Your task to perform on an android device: See recent photos Image 0: 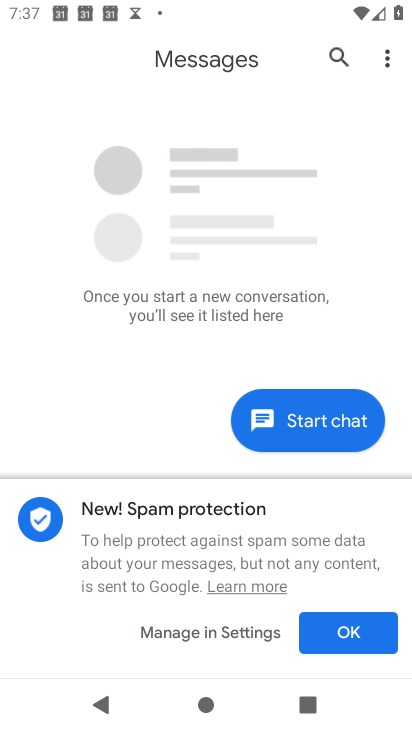
Step 0: press home button
Your task to perform on an android device: See recent photos Image 1: 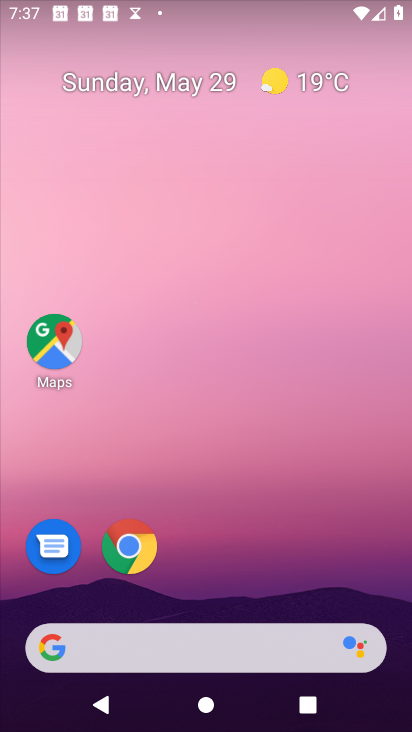
Step 1: drag from (199, 587) to (183, 7)
Your task to perform on an android device: See recent photos Image 2: 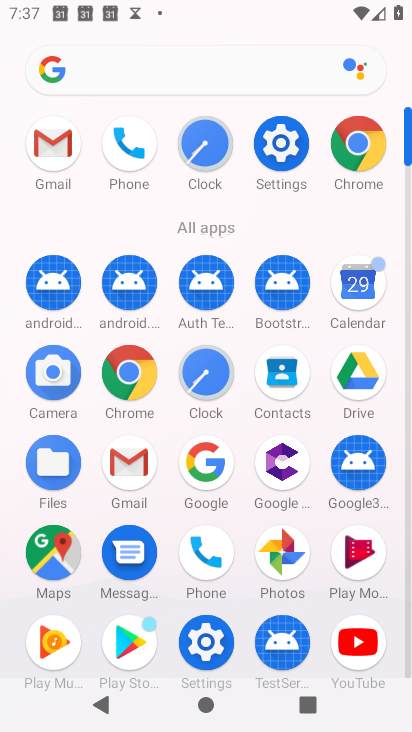
Step 2: click (283, 561)
Your task to perform on an android device: See recent photos Image 3: 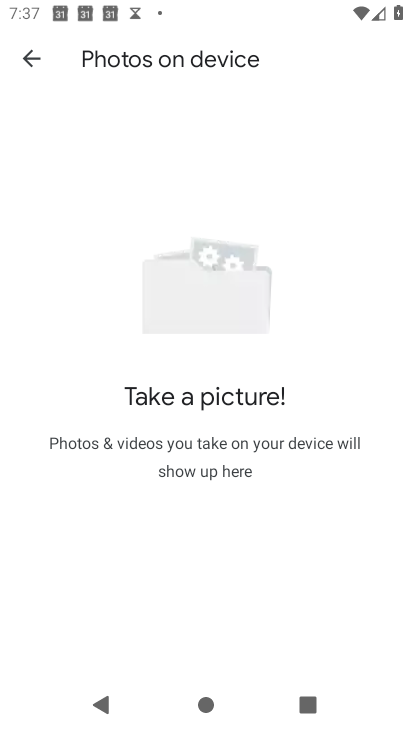
Step 3: click (35, 55)
Your task to perform on an android device: See recent photos Image 4: 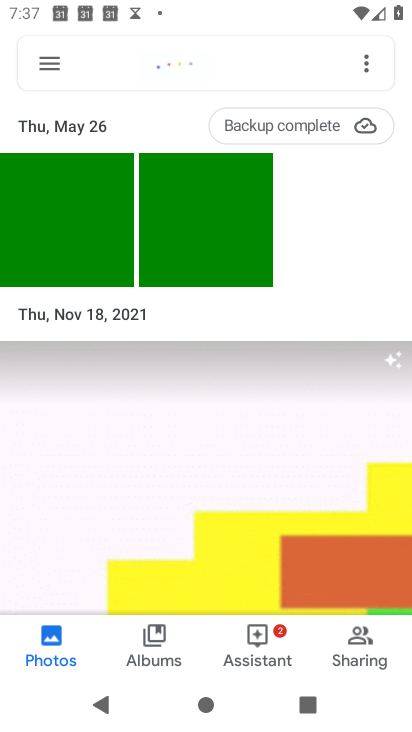
Step 4: task complete